Your task to perform on an android device: change timer sound Image 0: 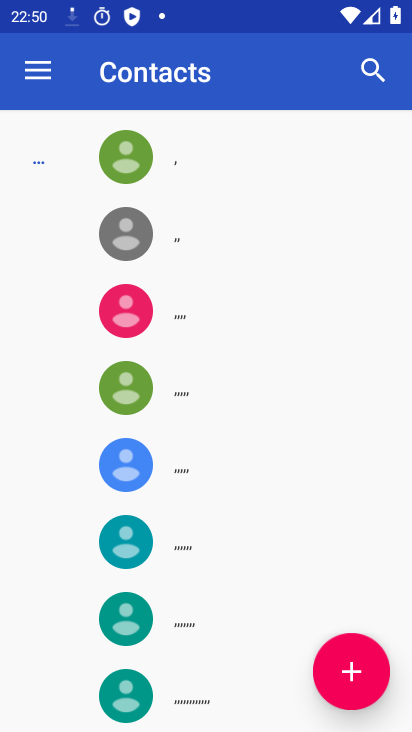
Step 0: press home button
Your task to perform on an android device: change timer sound Image 1: 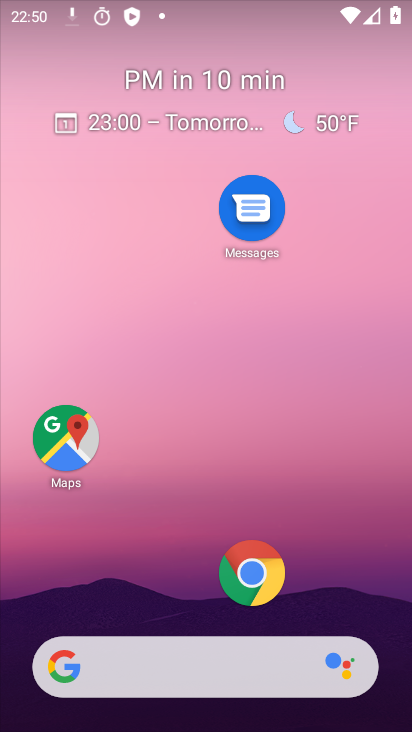
Step 1: drag from (169, 570) to (154, 75)
Your task to perform on an android device: change timer sound Image 2: 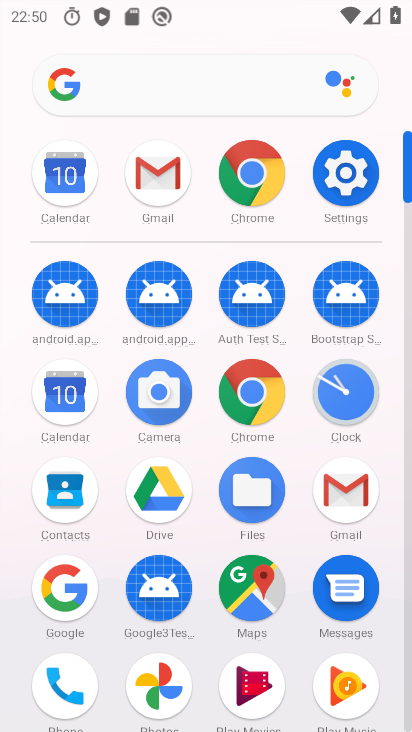
Step 2: click (342, 390)
Your task to perform on an android device: change timer sound Image 3: 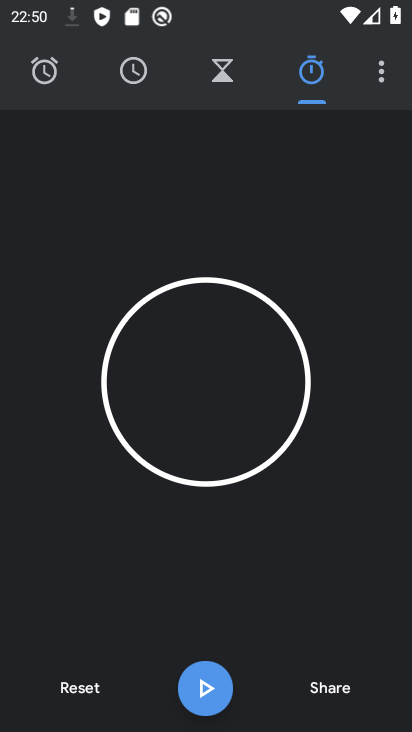
Step 3: click (370, 80)
Your task to perform on an android device: change timer sound Image 4: 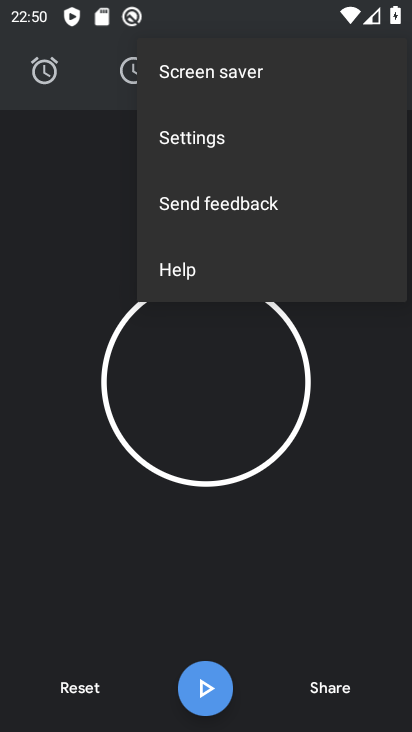
Step 4: click (228, 132)
Your task to perform on an android device: change timer sound Image 5: 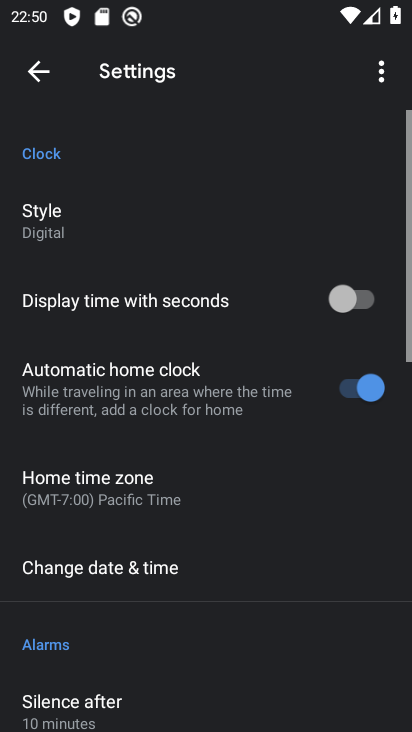
Step 5: drag from (208, 567) to (261, 0)
Your task to perform on an android device: change timer sound Image 6: 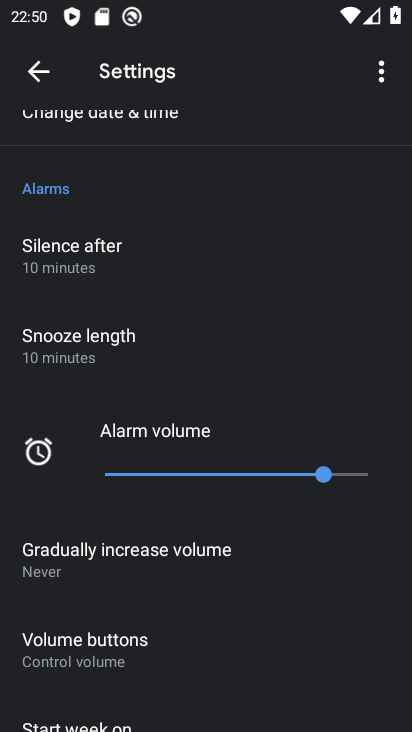
Step 6: drag from (168, 275) to (220, 22)
Your task to perform on an android device: change timer sound Image 7: 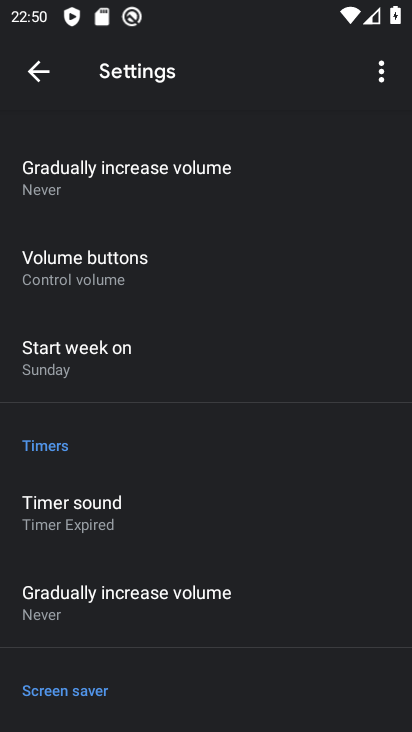
Step 7: click (111, 530)
Your task to perform on an android device: change timer sound Image 8: 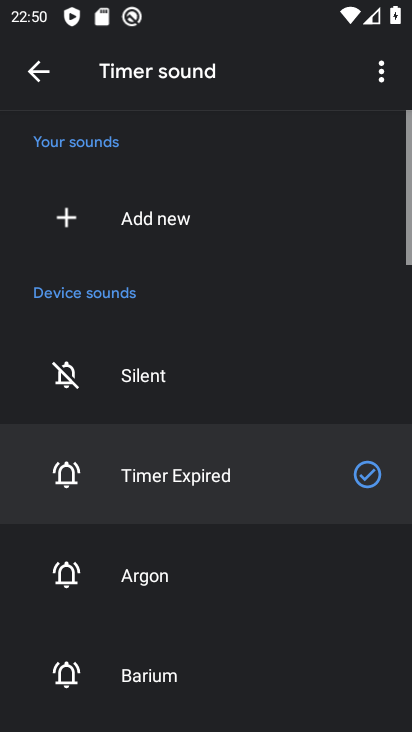
Step 8: click (159, 581)
Your task to perform on an android device: change timer sound Image 9: 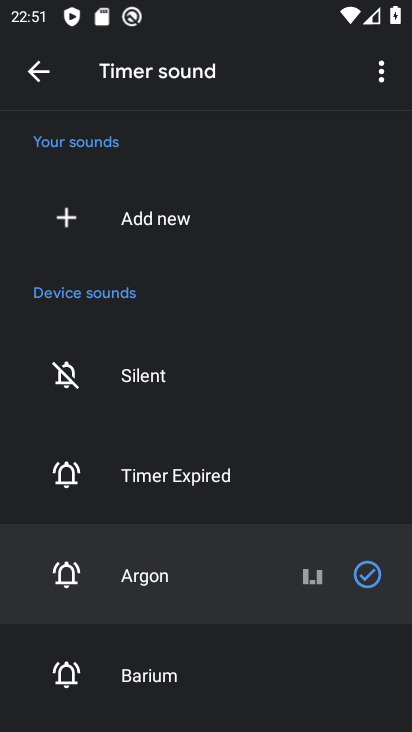
Step 9: task complete